Your task to perform on an android device: Go to eBay Image 0: 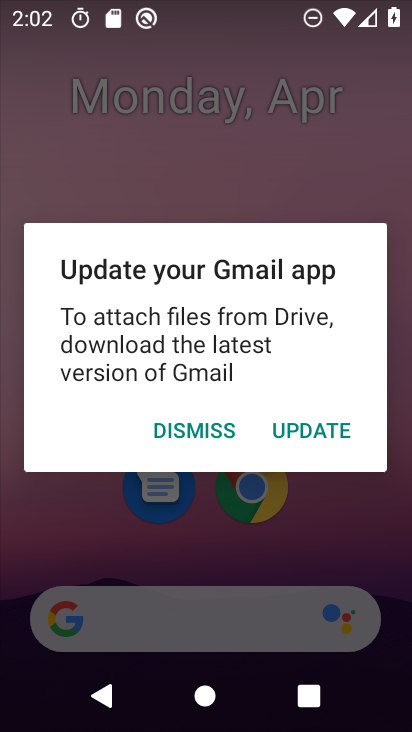
Step 0: press home button
Your task to perform on an android device: Go to eBay Image 1: 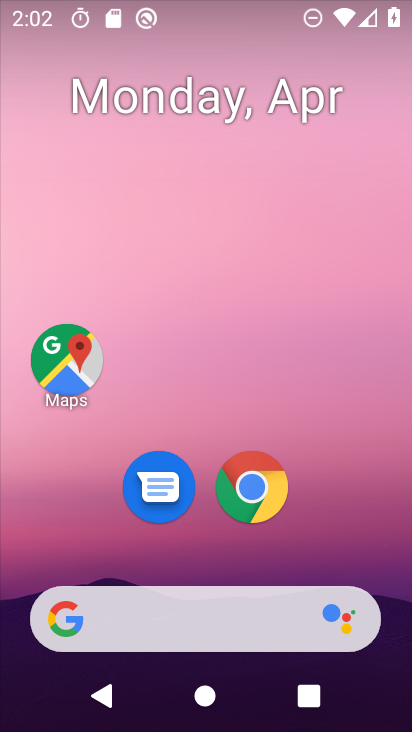
Step 1: drag from (293, 651) to (346, 159)
Your task to perform on an android device: Go to eBay Image 2: 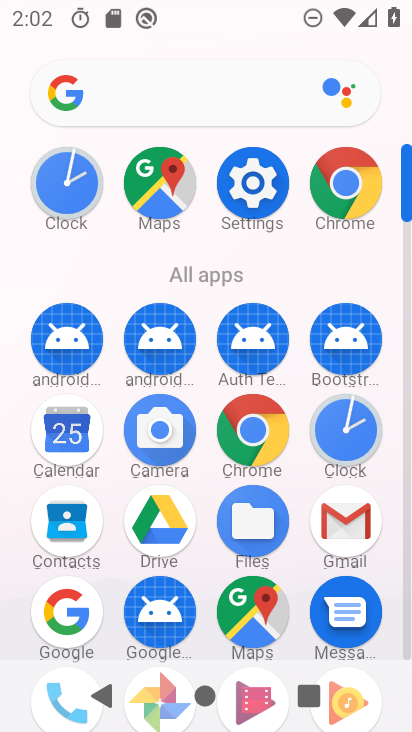
Step 2: click (352, 188)
Your task to perform on an android device: Go to eBay Image 3: 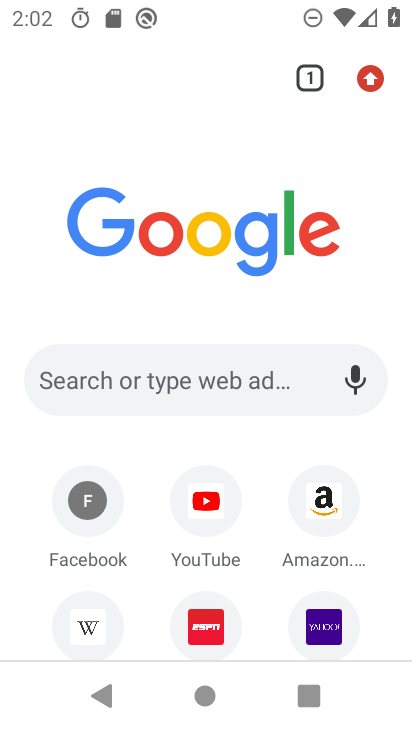
Step 3: click (163, 375)
Your task to perform on an android device: Go to eBay Image 4: 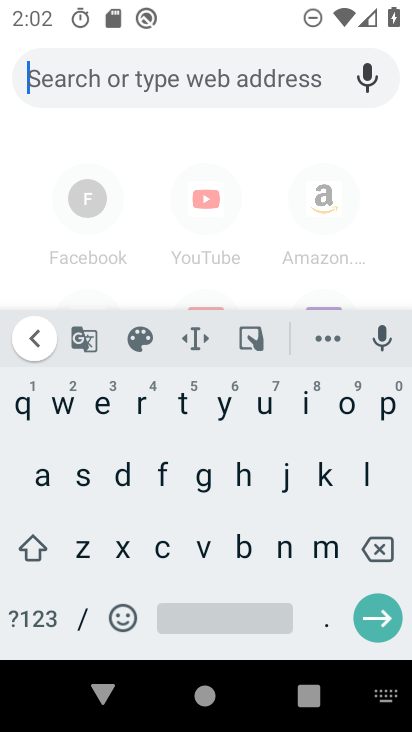
Step 4: click (102, 409)
Your task to perform on an android device: Go to eBay Image 5: 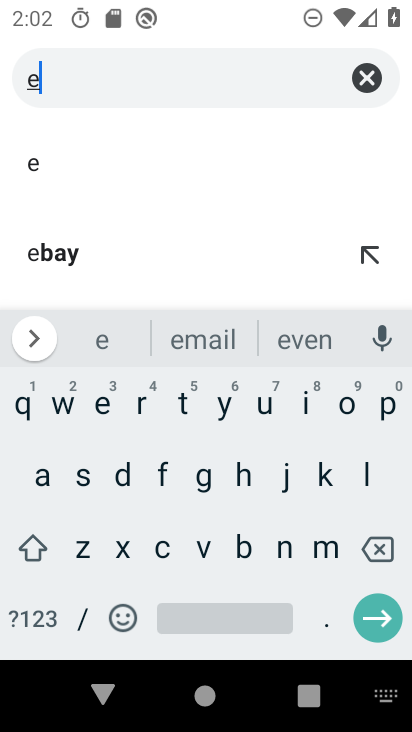
Step 5: click (87, 251)
Your task to perform on an android device: Go to eBay Image 6: 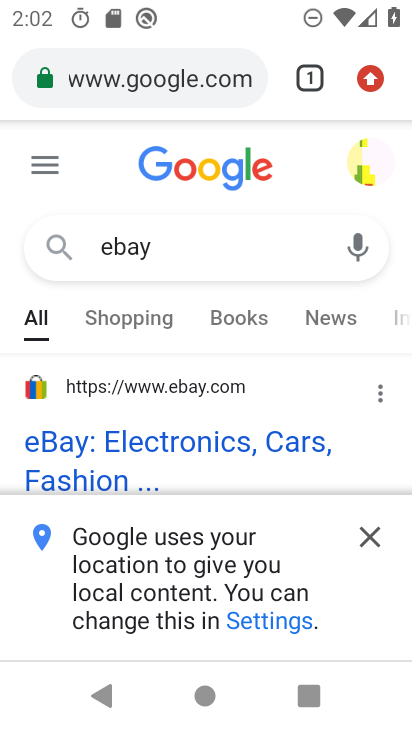
Step 6: click (369, 539)
Your task to perform on an android device: Go to eBay Image 7: 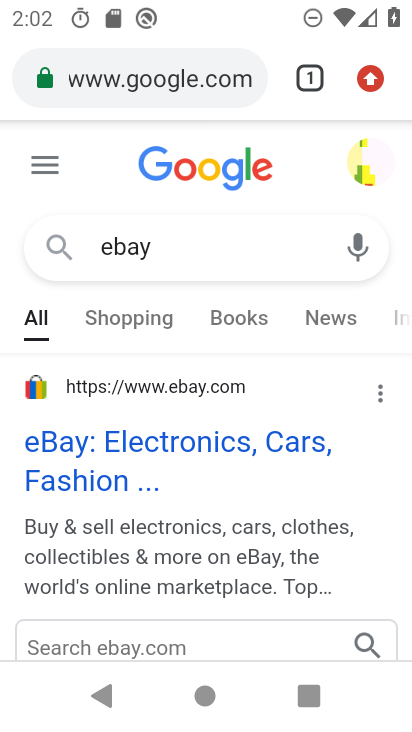
Step 7: click (125, 445)
Your task to perform on an android device: Go to eBay Image 8: 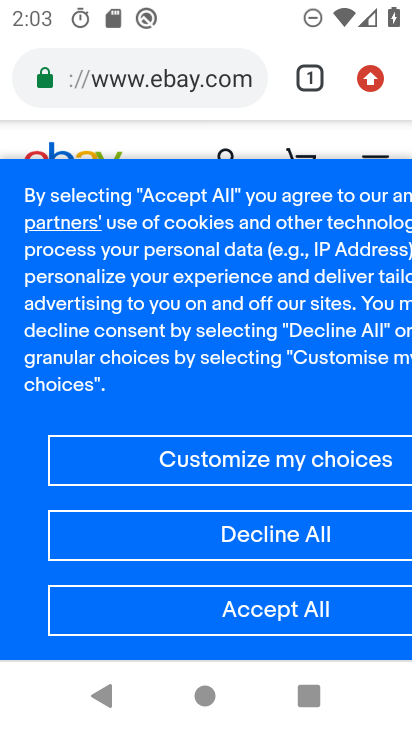
Step 8: task complete